Your task to perform on an android device: Go to Google Image 0: 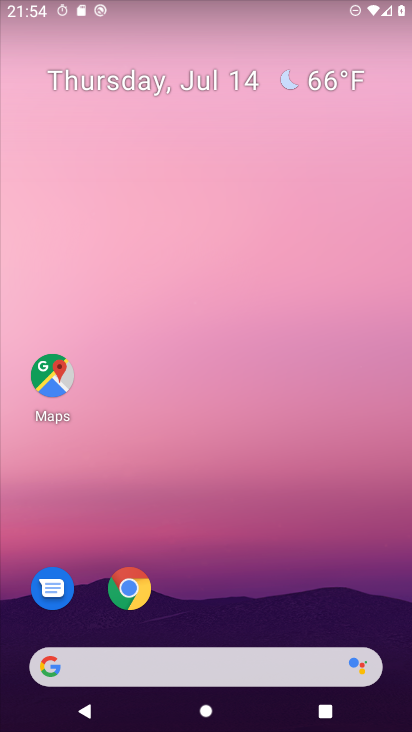
Step 0: drag from (369, 580) to (373, 114)
Your task to perform on an android device: Go to Google Image 1: 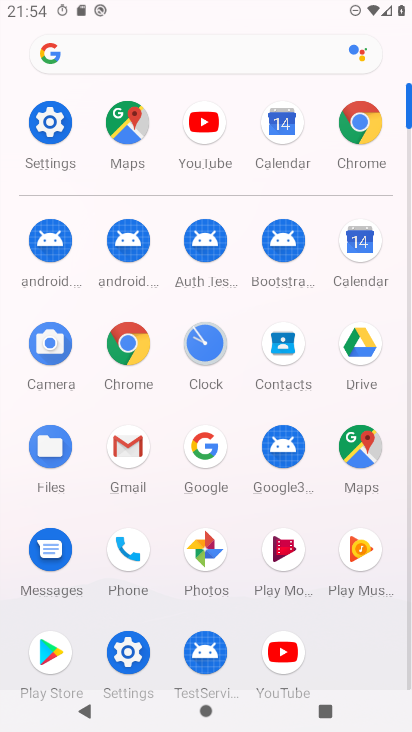
Step 1: click (197, 451)
Your task to perform on an android device: Go to Google Image 2: 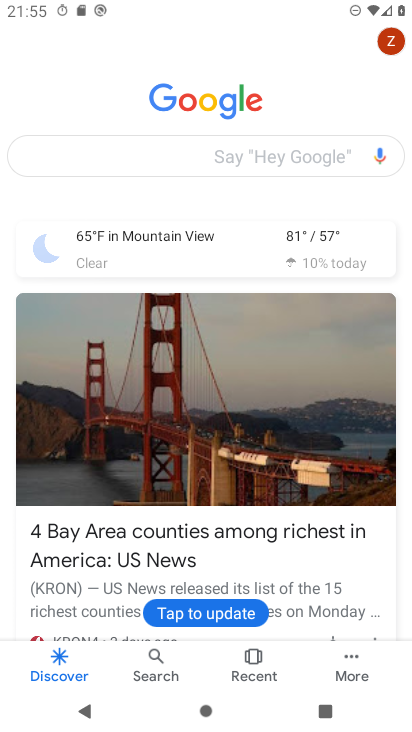
Step 2: task complete